Your task to perform on an android device: turn on improve location accuracy Image 0: 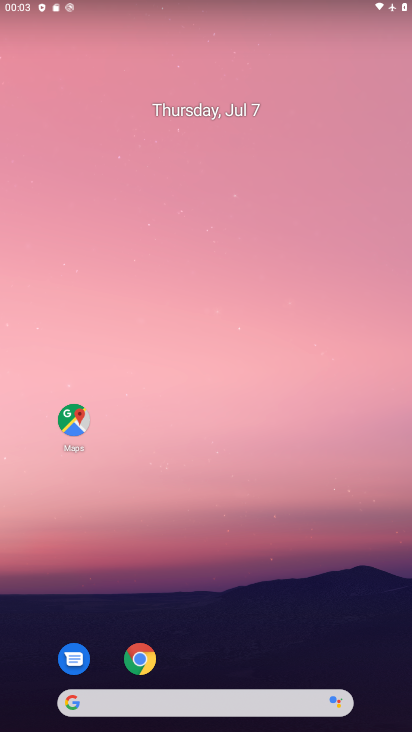
Step 0: drag from (242, 641) to (154, 172)
Your task to perform on an android device: turn on improve location accuracy Image 1: 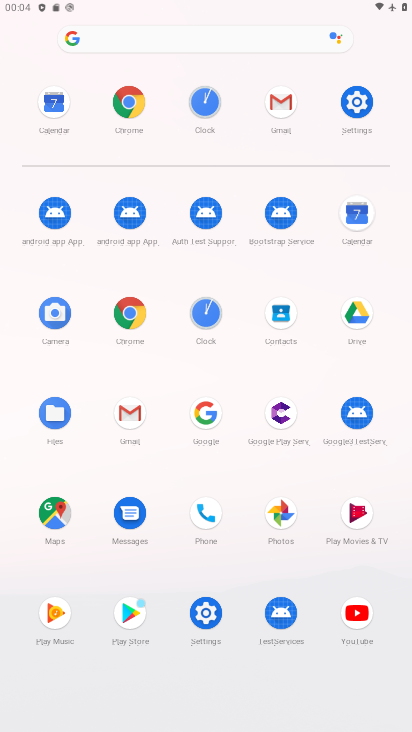
Step 1: click (356, 103)
Your task to perform on an android device: turn on improve location accuracy Image 2: 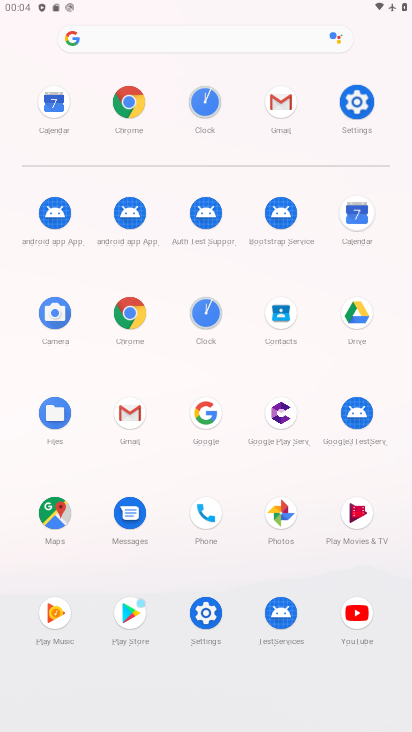
Step 2: click (356, 104)
Your task to perform on an android device: turn on improve location accuracy Image 3: 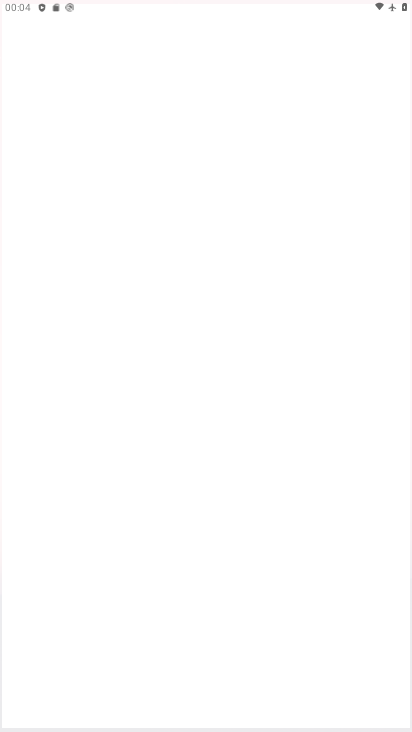
Step 3: click (356, 104)
Your task to perform on an android device: turn on improve location accuracy Image 4: 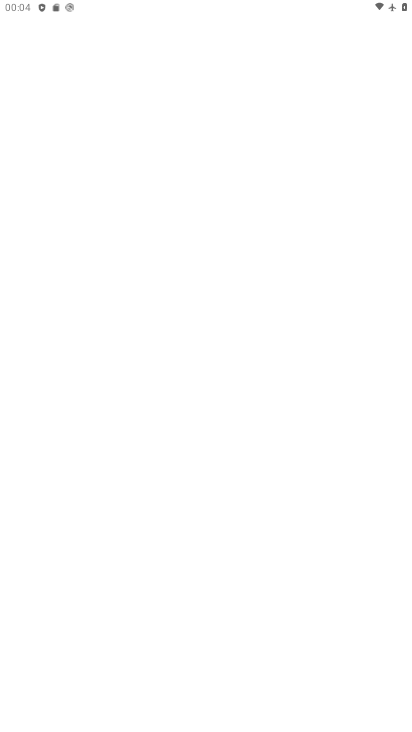
Step 4: click (356, 104)
Your task to perform on an android device: turn on improve location accuracy Image 5: 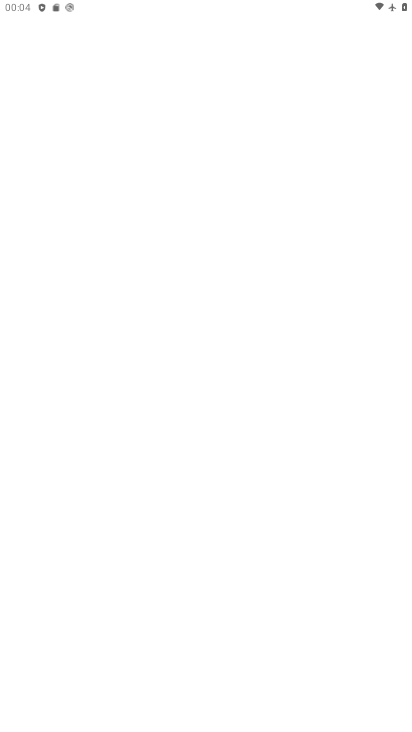
Step 5: click (358, 105)
Your task to perform on an android device: turn on improve location accuracy Image 6: 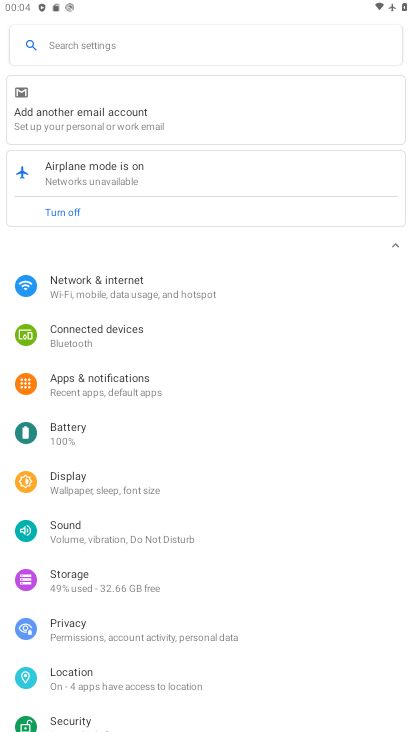
Step 6: drag from (99, 588) to (70, 214)
Your task to perform on an android device: turn on improve location accuracy Image 7: 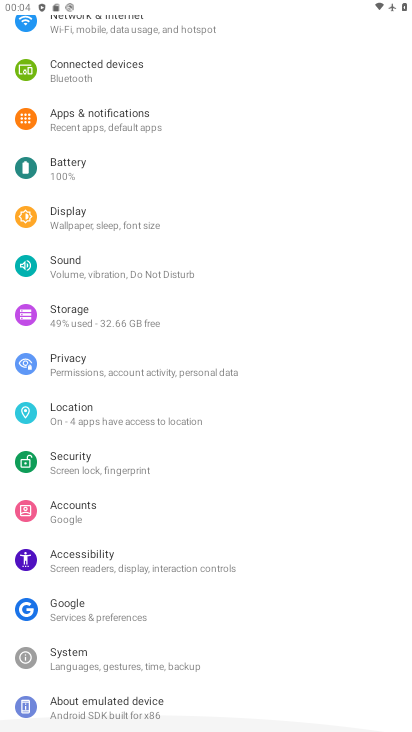
Step 7: drag from (150, 457) to (157, 339)
Your task to perform on an android device: turn on improve location accuracy Image 8: 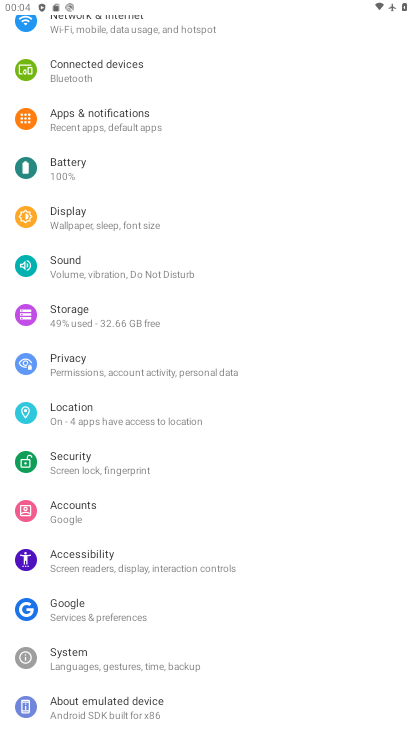
Step 8: click (82, 417)
Your task to perform on an android device: turn on improve location accuracy Image 9: 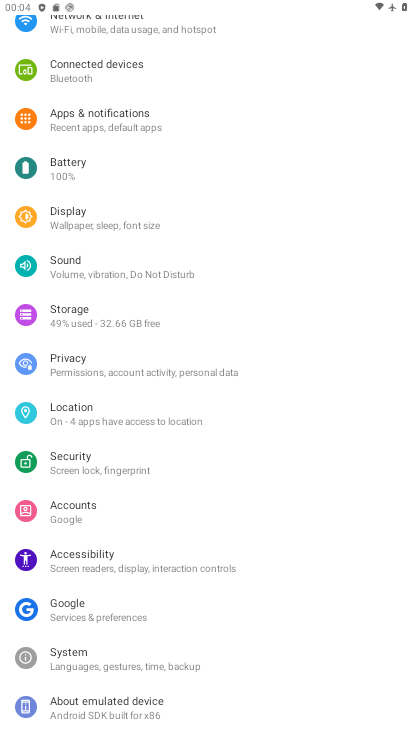
Step 9: click (85, 416)
Your task to perform on an android device: turn on improve location accuracy Image 10: 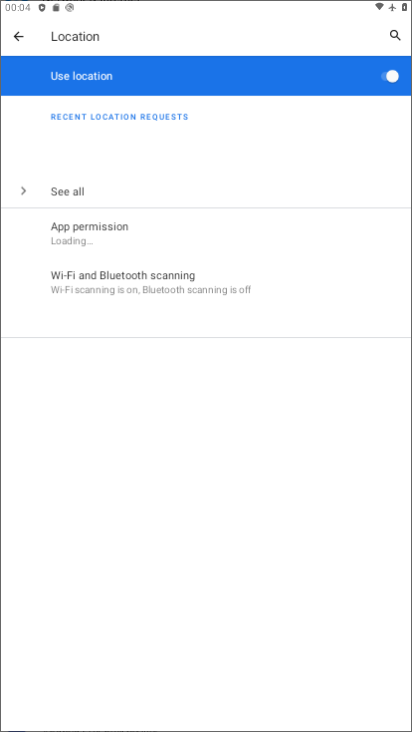
Step 10: click (90, 416)
Your task to perform on an android device: turn on improve location accuracy Image 11: 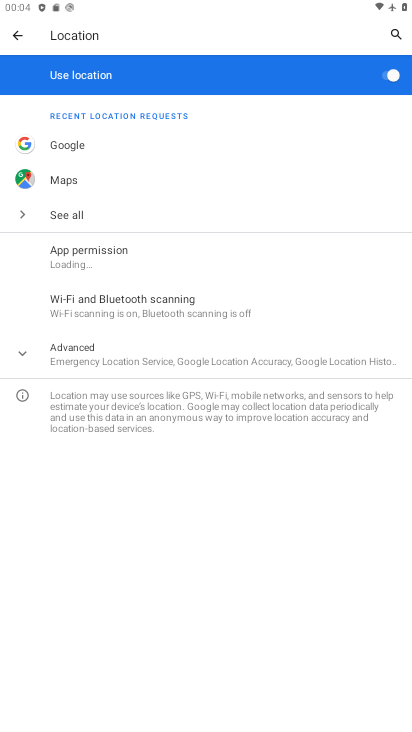
Step 11: click (80, 357)
Your task to perform on an android device: turn on improve location accuracy Image 12: 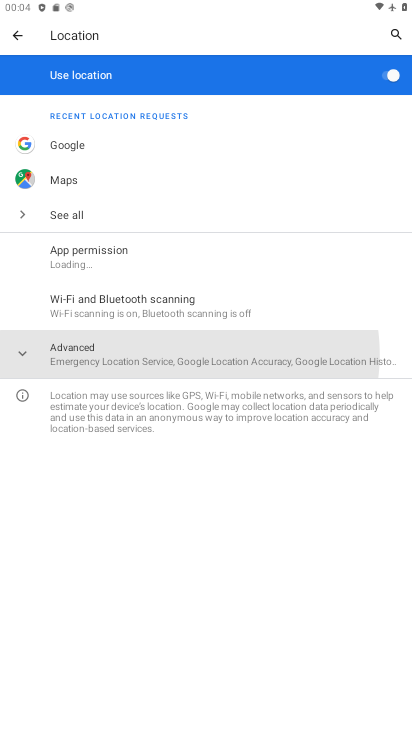
Step 12: click (80, 357)
Your task to perform on an android device: turn on improve location accuracy Image 13: 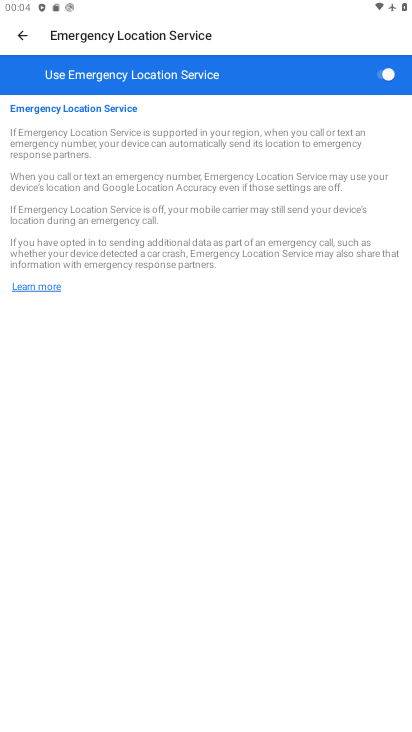
Step 13: click (20, 31)
Your task to perform on an android device: turn on improve location accuracy Image 14: 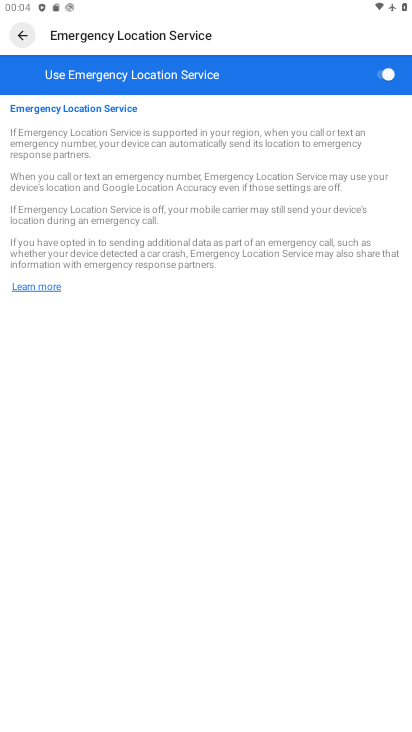
Step 14: click (29, 33)
Your task to perform on an android device: turn on improve location accuracy Image 15: 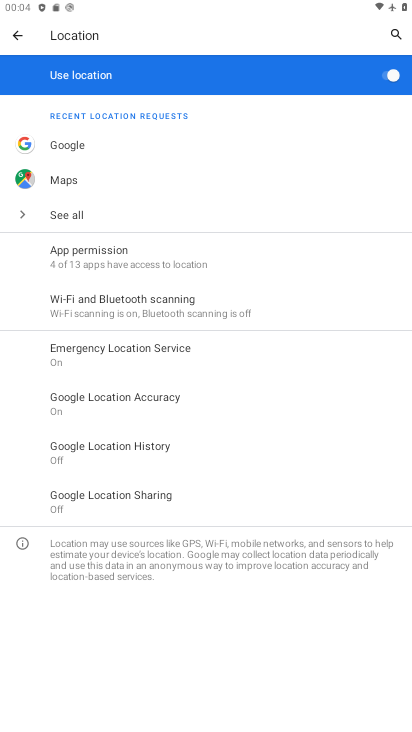
Step 15: click (82, 397)
Your task to perform on an android device: turn on improve location accuracy Image 16: 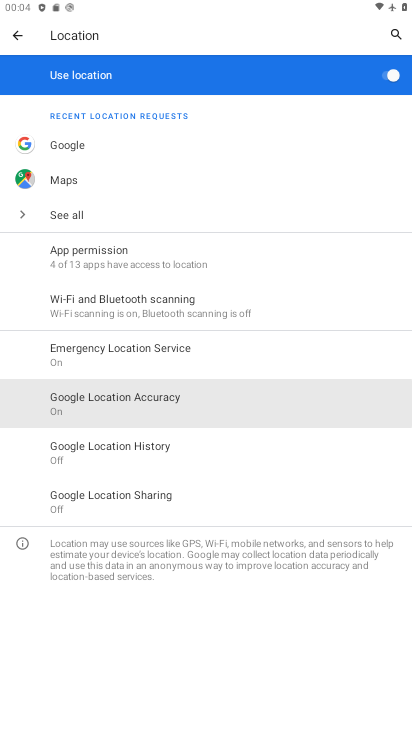
Step 16: click (82, 397)
Your task to perform on an android device: turn on improve location accuracy Image 17: 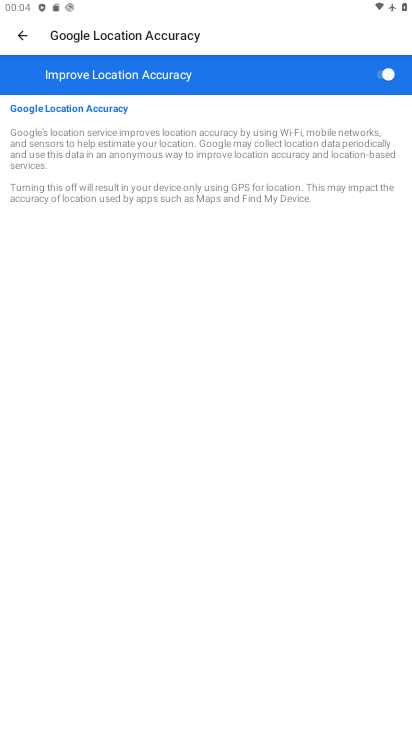
Step 17: press back button
Your task to perform on an android device: turn on improve location accuracy Image 18: 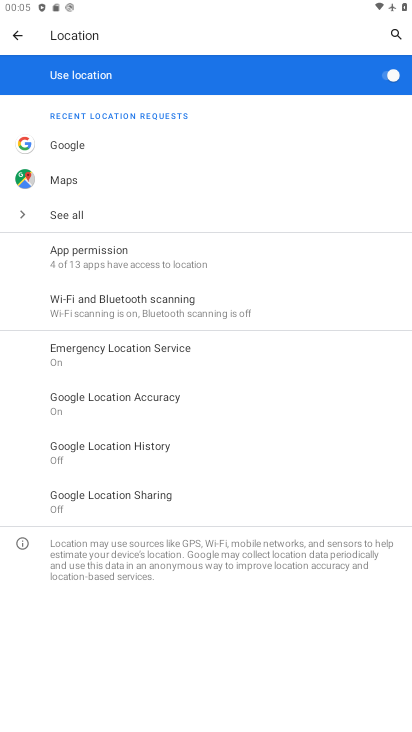
Step 18: click (146, 406)
Your task to perform on an android device: turn on improve location accuracy Image 19: 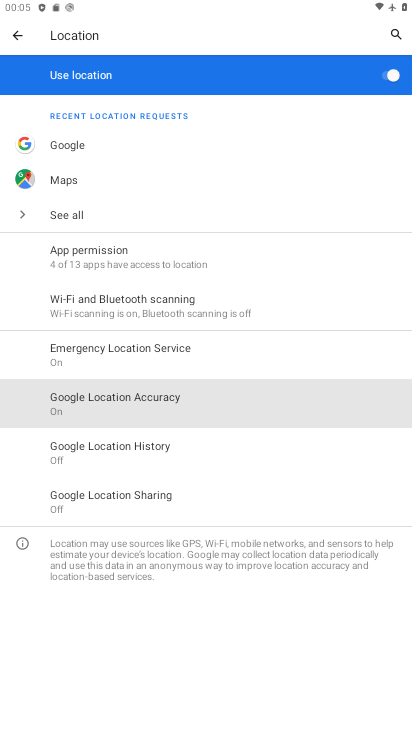
Step 19: click (144, 400)
Your task to perform on an android device: turn on improve location accuracy Image 20: 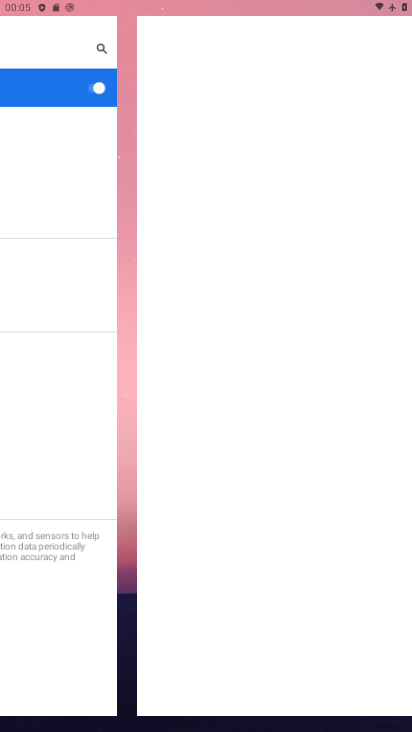
Step 20: click (144, 397)
Your task to perform on an android device: turn on improve location accuracy Image 21: 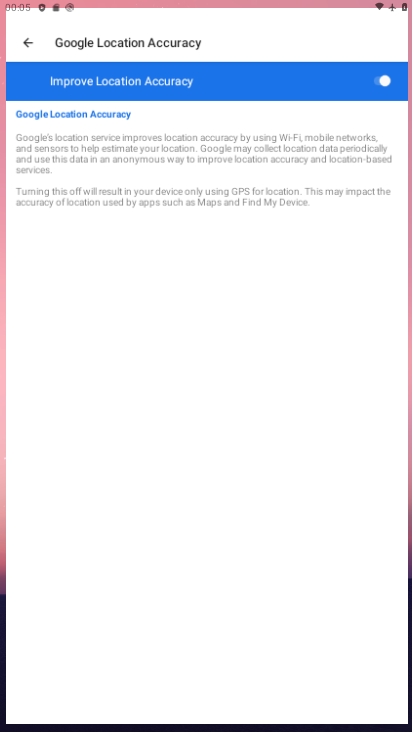
Step 21: click (144, 397)
Your task to perform on an android device: turn on improve location accuracy Image 22: 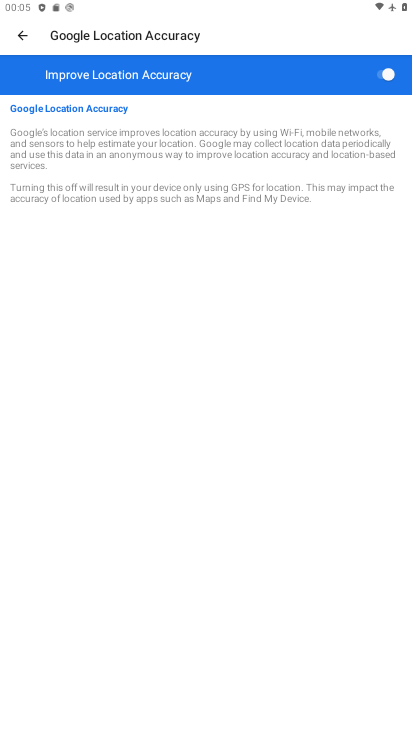
Step 22: task complete